Your task to perform on an android device: Go to Wikipedia Image 0: 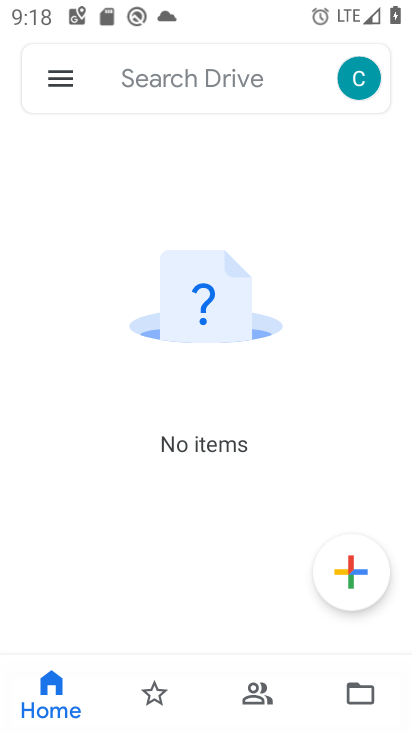
Step 0: press home button
Your task to perform on an android device: Go to Wikipedia Image 1: 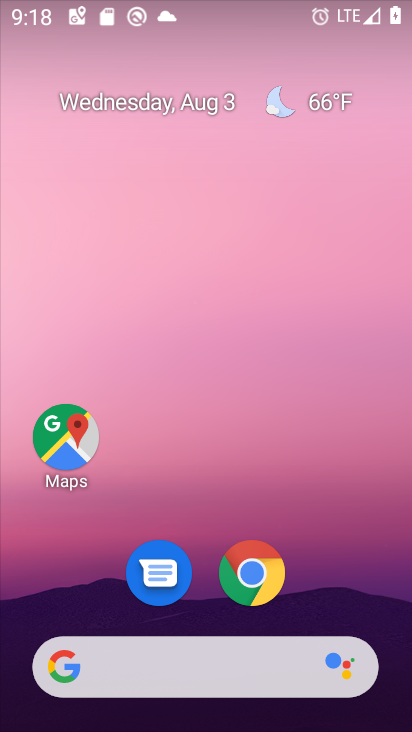
Step 1: click (256, 571)
Your task to perform on an android device: Go to Wikipedia Image 2: 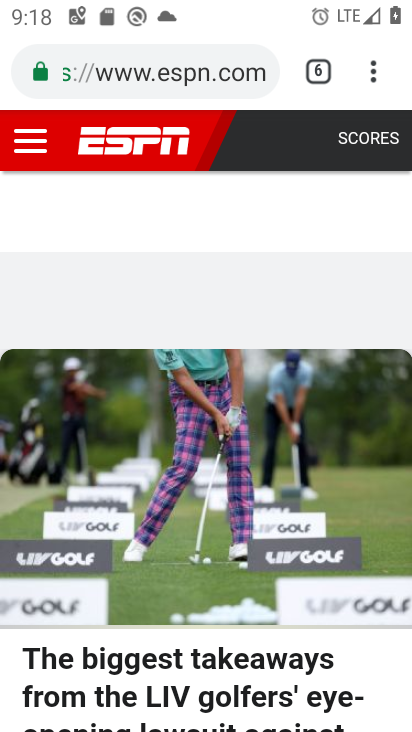
Step 2: click (170, 69)
Your task to perform on an android device: Go to Wikipedia Image 3: 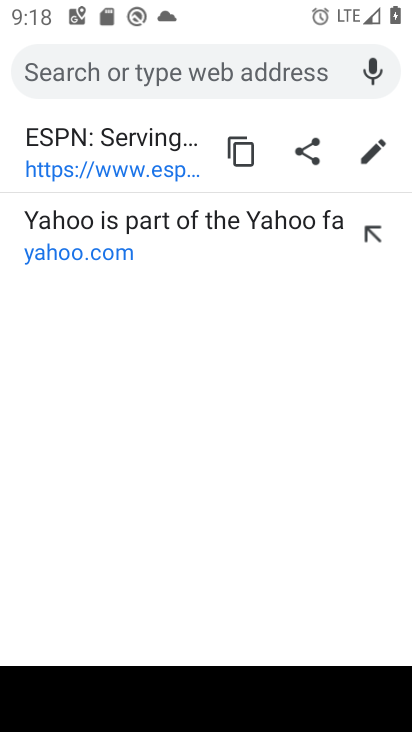
Step 3: type "wikipedia"
Your task to perform on an android device: Go to Wikipedia Image 4: 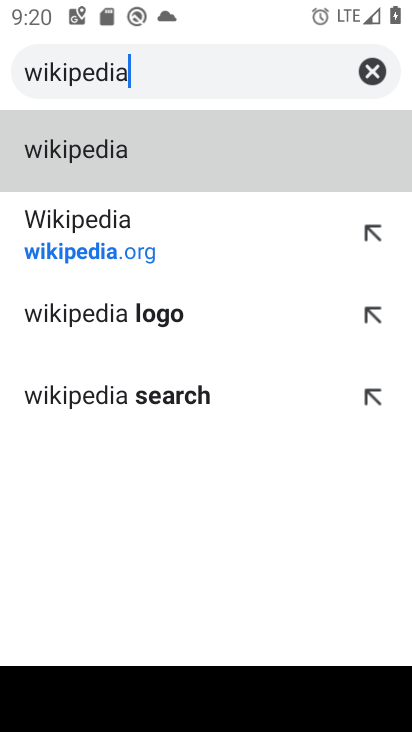
Step 4: click (152, 159)
Your task to perform on an android device: Go to Wikipedia Image 5: 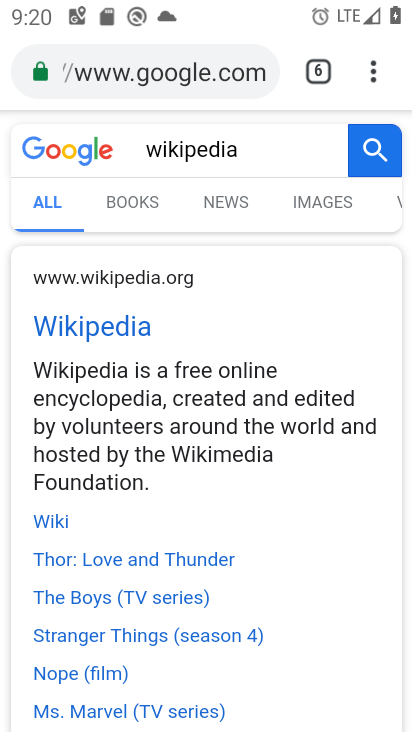
Step 5: click (107, 292)
Your task to perform on an android device: Go to Wikipedia Image 6: 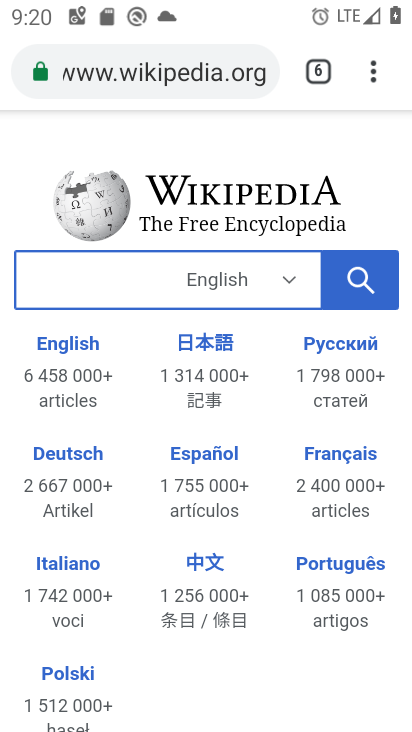
Step 6: task complete